Your task to perform on an android device: Search for vegetarian restaurants on Maps Image 0: 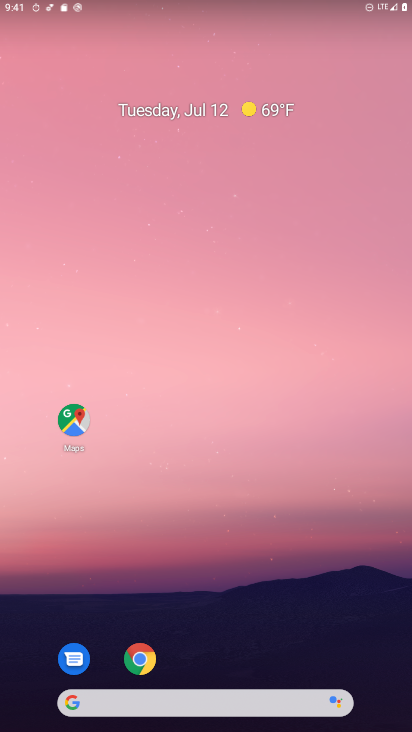
Step 0: click (184, 166)
Your task to perform on an android device: Search for vegetarian restaurants on Maps Image 1: 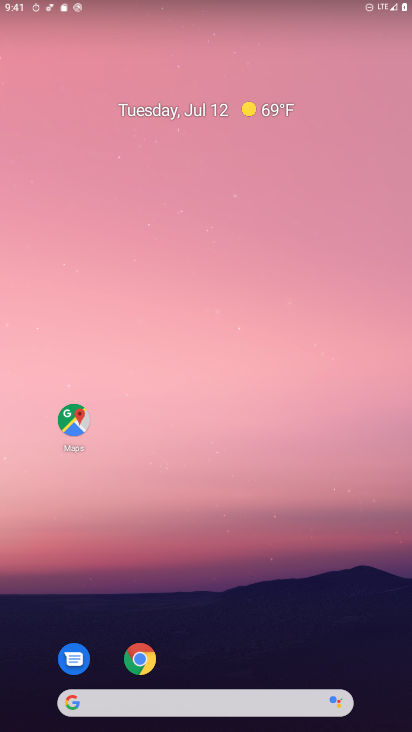
Step 1: drag from (292, 730) to (273, 134)
Your task to perform on an android device: Search for vegetarian restaurants on Maps Image 2: 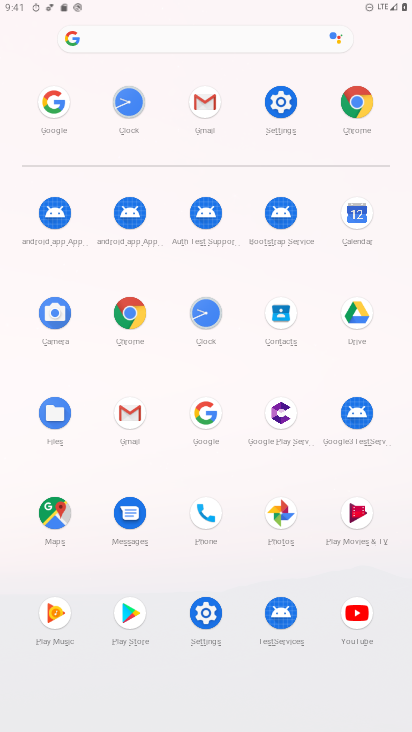
Step 2: click (49, 518)
Your task to perform on an android device: Search for vegetarian restaurants on Maps Image 3: 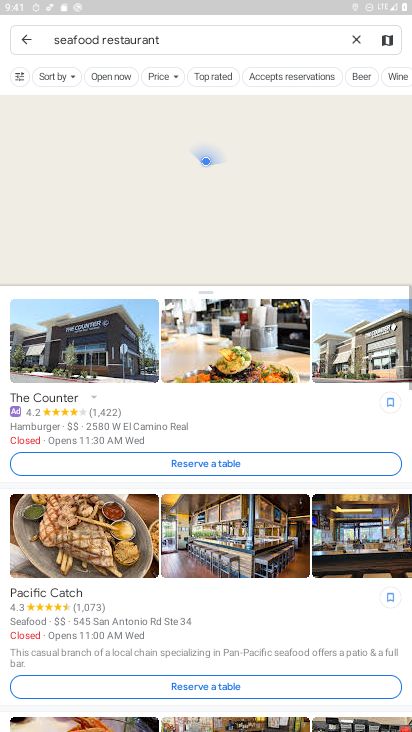
Step 3: click (351, 36)
Your task to perform on an android device: Search for vegetarian restaurants on Maps Image 4: 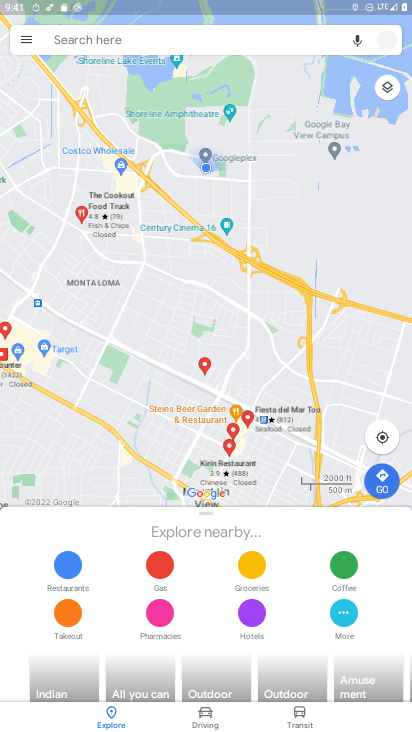
Step 4: click (218, 39)
Your task to perform on an android device: Search for vegetarian restaurants on Maps Image 5: 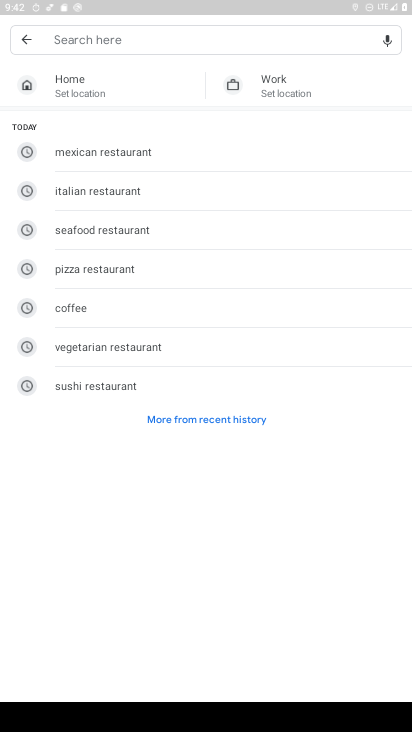
Step 5: type "vegetarian restaurants"
Your task to perform on an android device: Search for vegetarian restaurants on Maps Image 6: 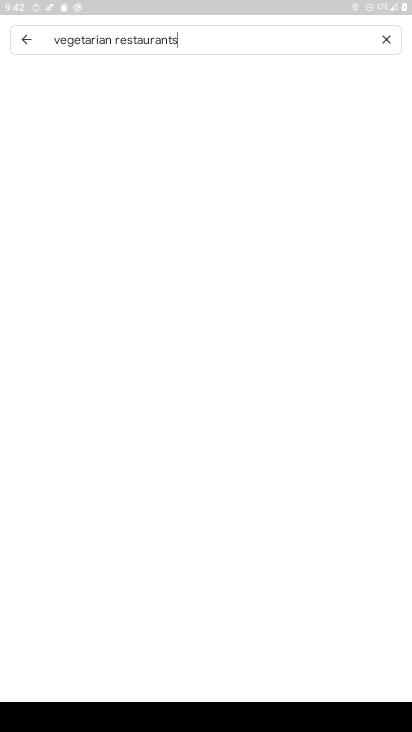
Step 6: type ""
Your task to perform on an android device: Search for vegetarian restaurants on Maps Image 7: 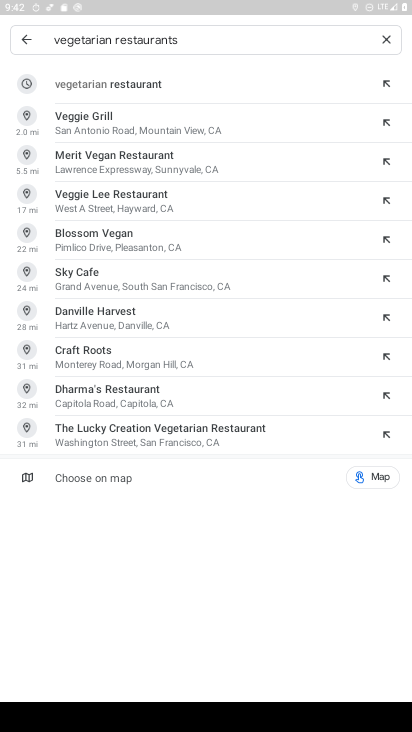
Step 7: click (121, 83)
Your task to perform on an android device: Search for vegetarian restaurants on Maps Image 8: 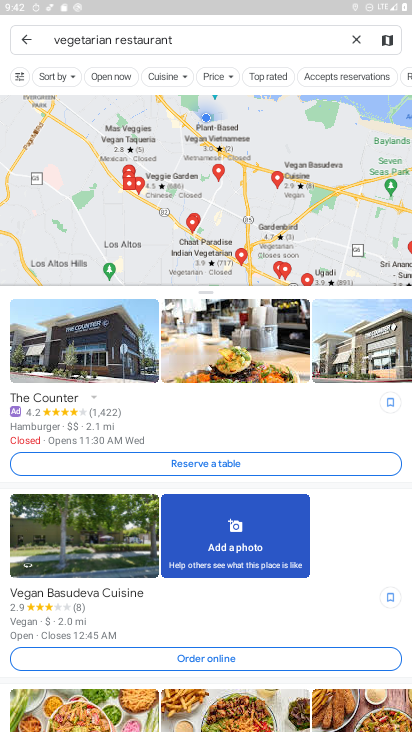
Step 8: task complete